Your task to perform on an android device: turn notification dots on Image 0: 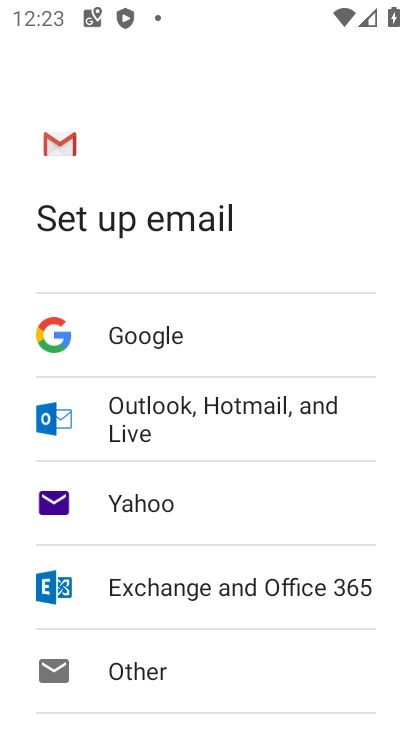
Step 0: press home button
Your task to perform on an android device: turn notification dots on Image 1: 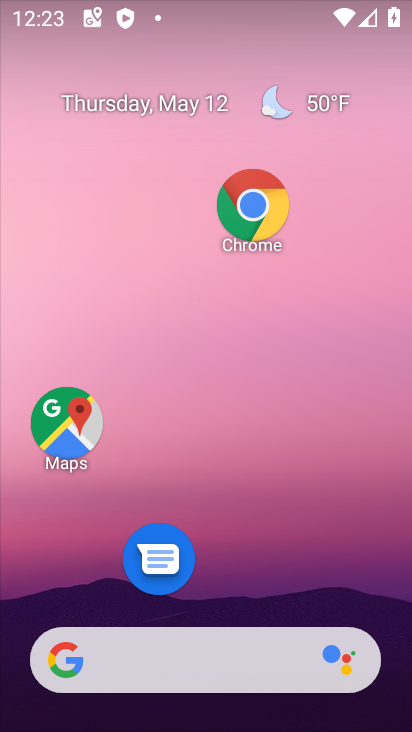
Step 1: drag from (267, 439) to (246, 111)
Your task to perform on an android device: turn notification dots on Image 2: 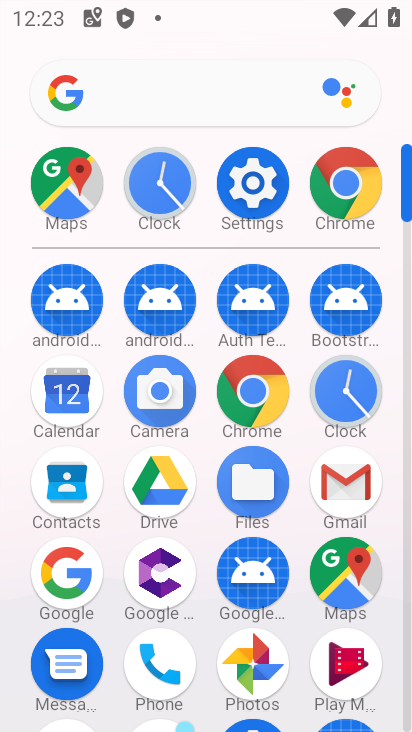
Step 2: click (262, 223)
Your task to perform on an android device: turn notification dots on Image 3: 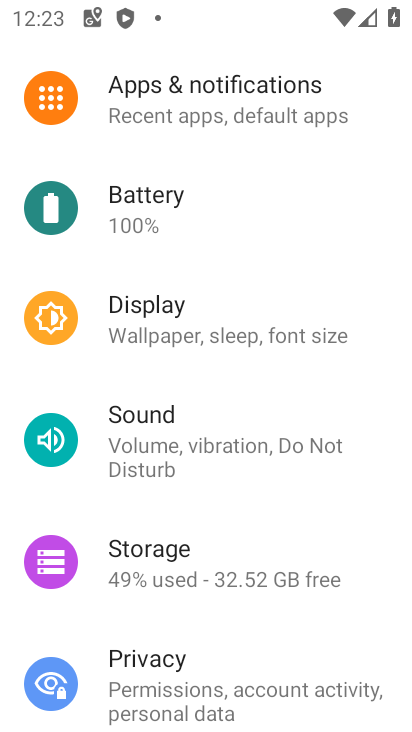
Step 3: click (179, 116)
Your task to perform on an android device: turn notification dots on Image 4: 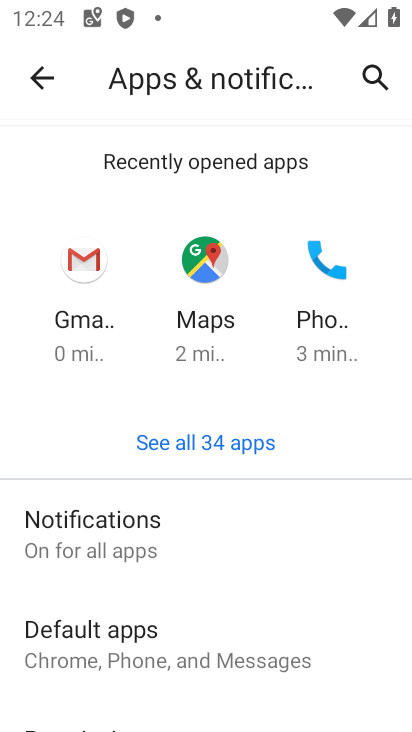
Step 4: drag from (251, 624) to (308, 207)
Your task to perform on an android device: turn notification dots on Image 5: 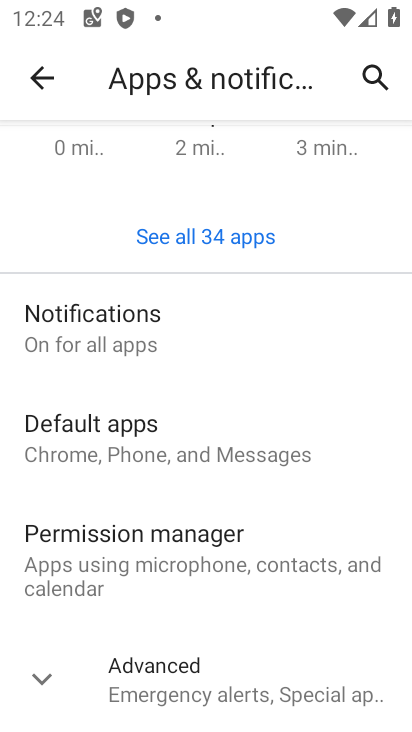
Step 5: click (153, 337)
Your task to perform on an android device: turn notification dots on Image 6: 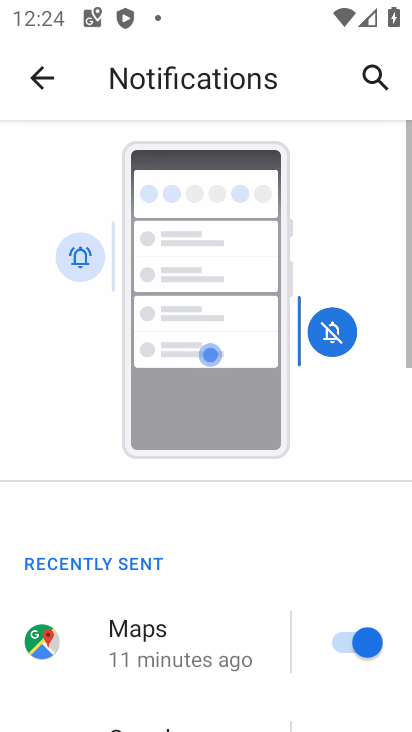
Step 6: drag from (201, 636) to (229, 283)
Your task to perform on an android device: turn notification dots on Image 7: 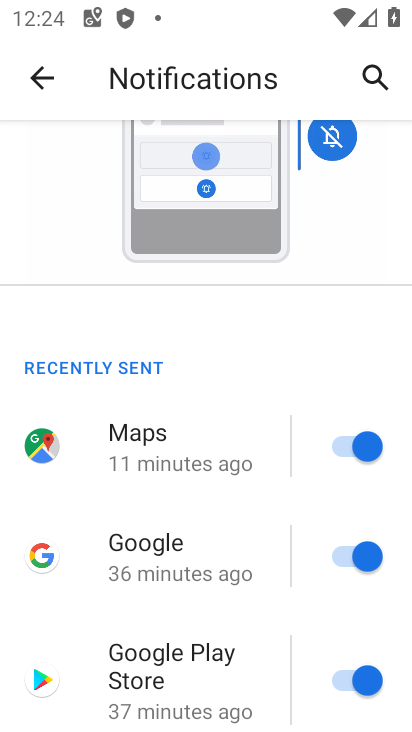
Step 7: drag from (203, 678) to (267, 241)
Your task to perform on an android device: turn notification dots on Image 8: 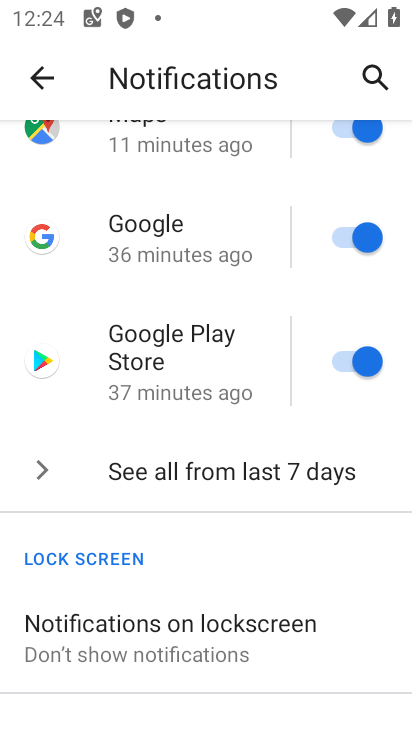
Step 8: drag from (230, 660) to (253, 270)
Your task to perform on an android device: turn notification dots on Image 9: 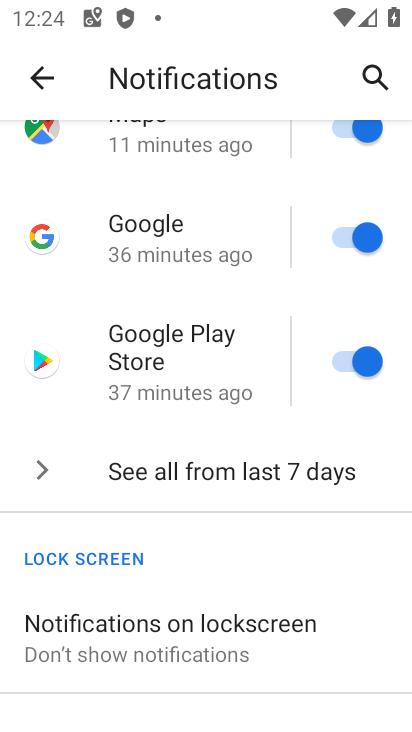
Step 9: drag from (171, 607) to (174, 227)
Your task to perform on an android device: turn notification dots on Image 10: 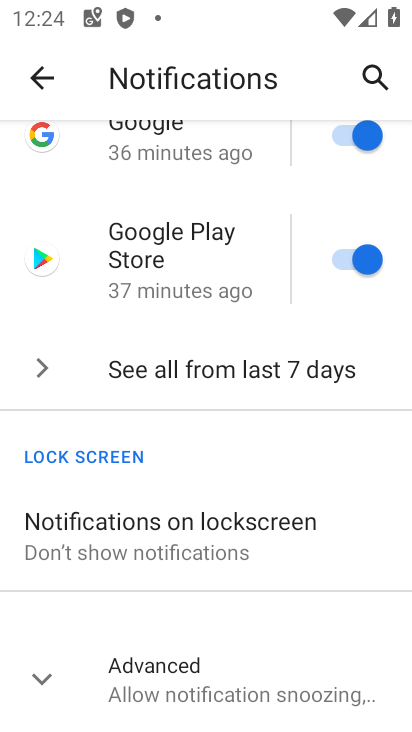
Step 10: click (159, 688)
Your task to perform on an android device: turn notification dots on Image 11: 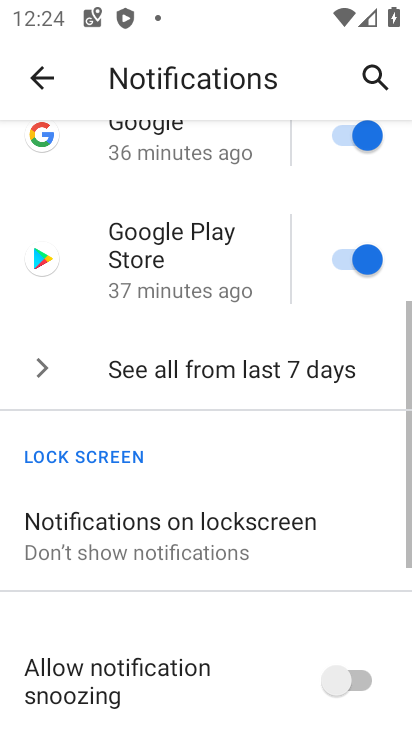
Step 11: task complete